Your task to perform on an android device: see sites visited before in the chrome app Image 0: 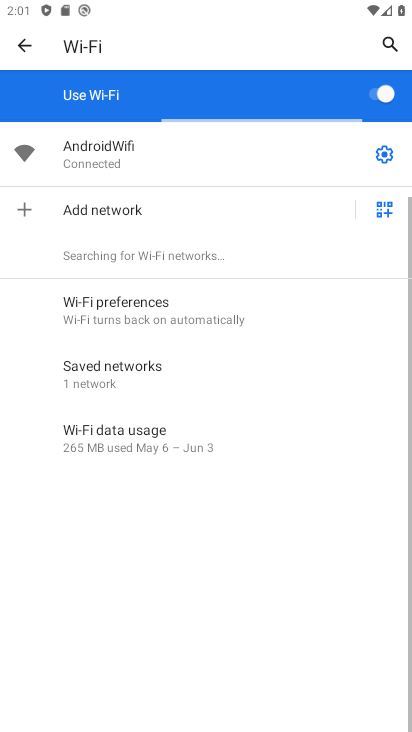
Step 0: press home button
Your task to perform on an android device: see sites visited before in the chrome app Image 1: 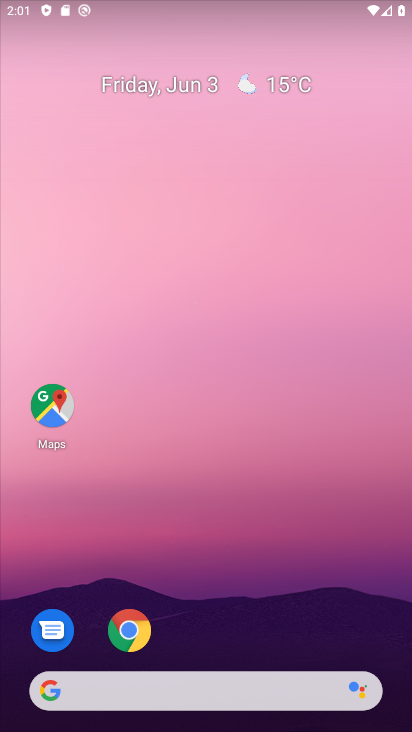
Step 1: drag from (221, 653) to (350, 98)
Your task to perform on an android device: see sites visited before in the chrome app Image 2: 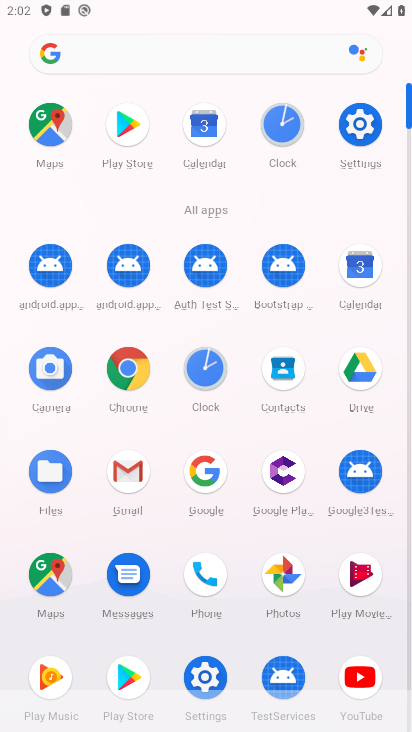
Step 2: click (127, 372)
Your task to perform on an android device: see sites visited before in the chrome app Image 3: 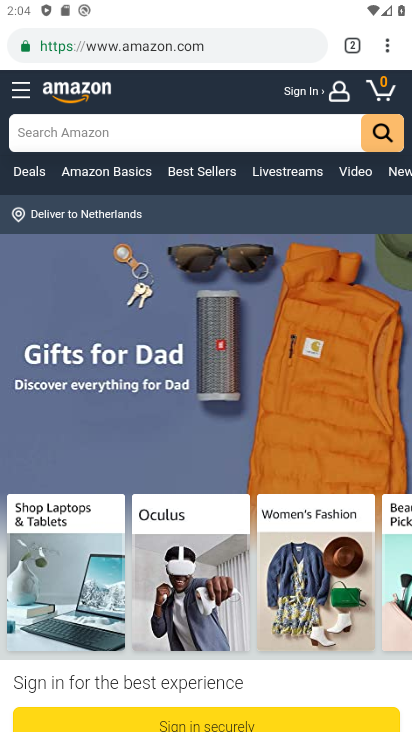
Step 3: drag from (393, 39) to (211, 548)
Your task to perform on an android device: see sites visited before in the chrome app Image 4: 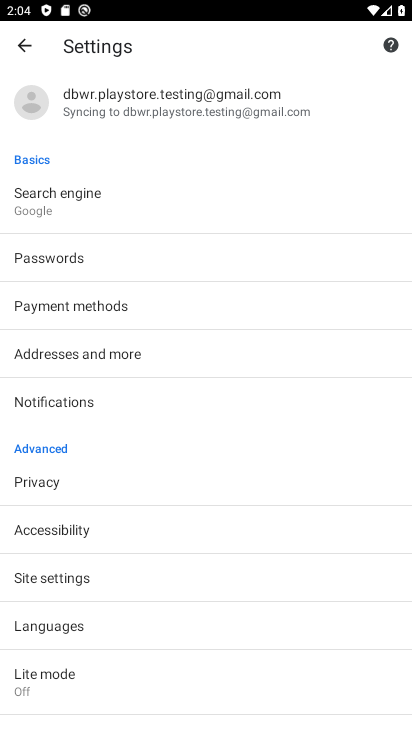
Step 4: click (22, 49)
Your task to perform on an android device: see sites visited before in the chrome app Image 5: 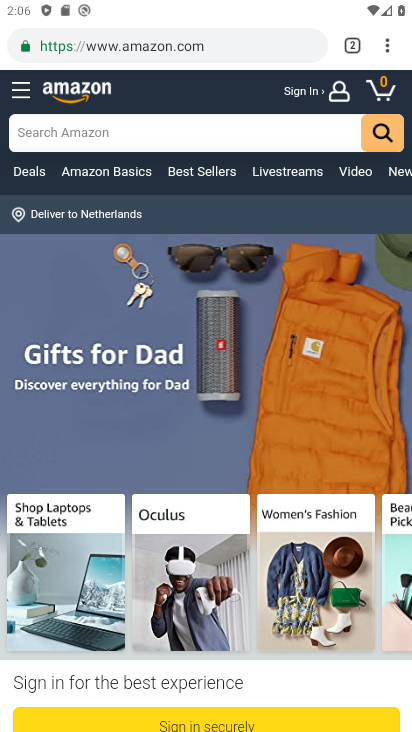
Step 5: task complete